Your task to perform on an android device: Open battery settings Image 0: 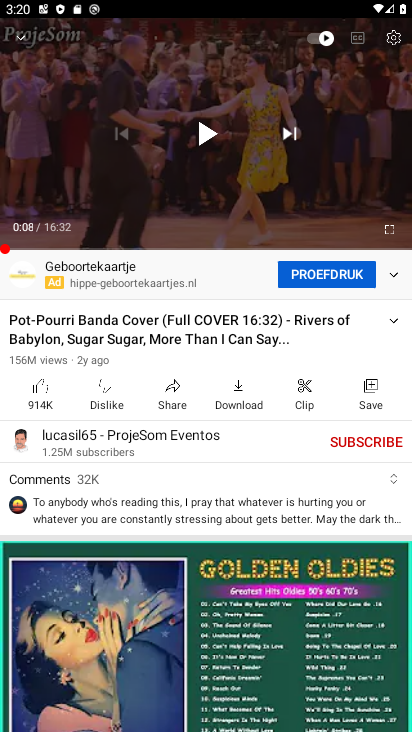
Step 0: press home button
Your task to perform on an android device: Open battery settings Image 1: 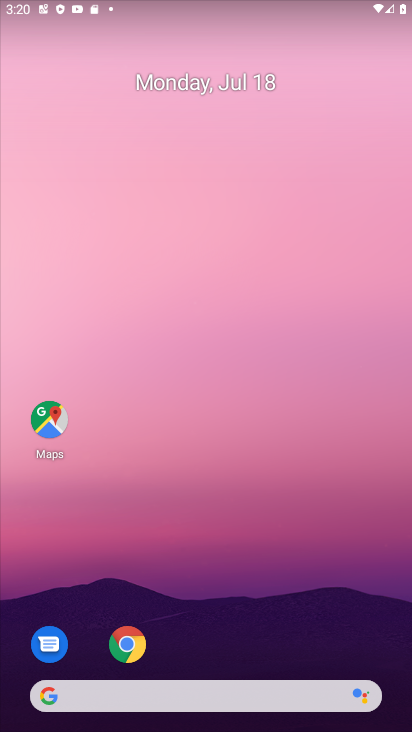
Step 1: drag from (353, 309) to (343, 191)
Your task to perform on an android device: Open battery settings Image 2: 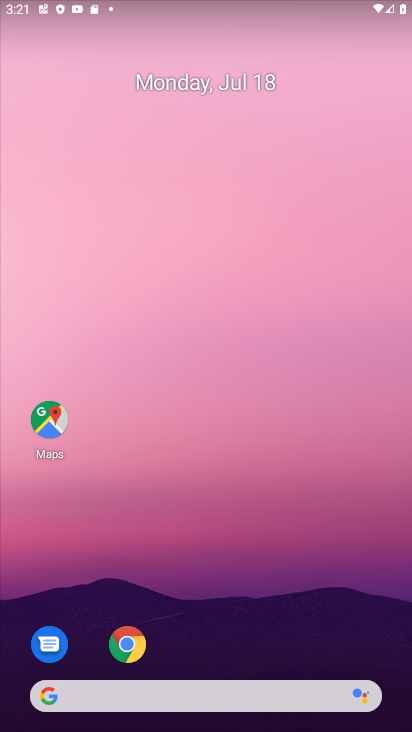
Step 2: drag from (335, 644) to (345, 17)
Your task to perform on an android device: Open battery settings Image 3: 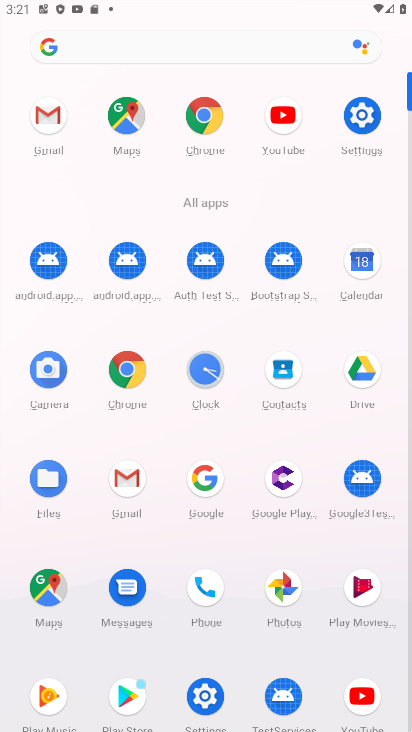
Step 3: click (205, 697)
Your task to perform on an android device: Open battery settings Image 4: 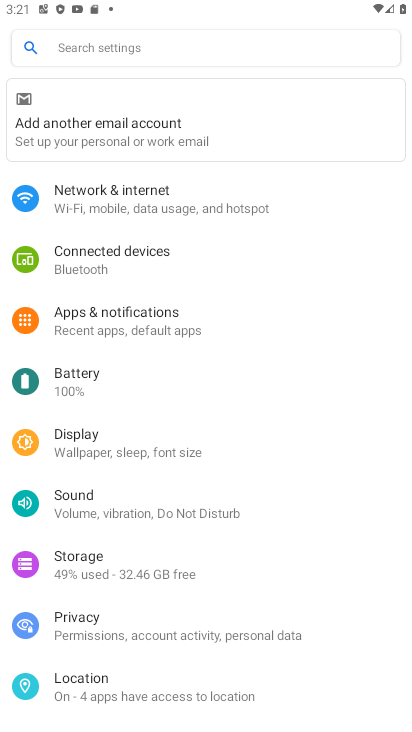
Step 4: click (73, 377)
Your task to perform on an android device: Open battery settings Image 5: 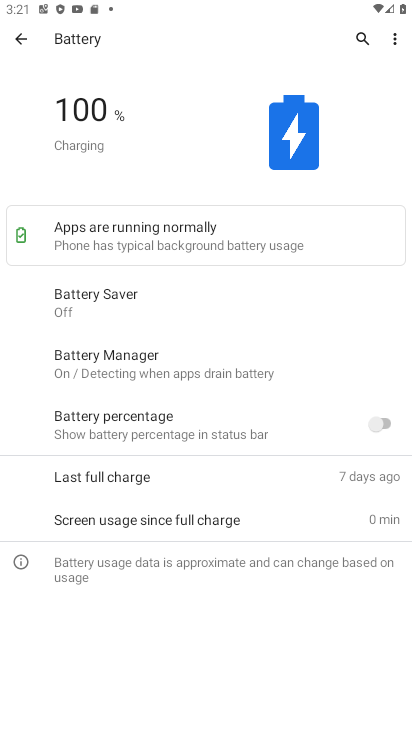
Step 5: task complete